Your task to perform on an android device: turn on sleep mode Image 0: 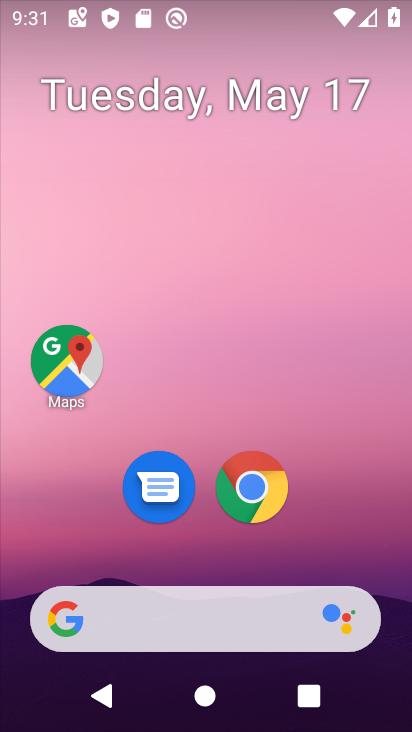
Step 0: press home button
Your task to perform on an android device: turn on sleep mode Image 1: 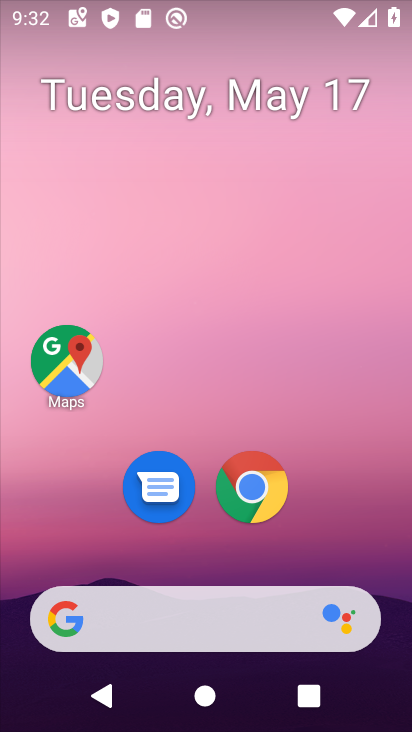
Step 1: drag from (246, 645) to (251, 321)
Your task to perform on an android device: turn on sleep mode Image 2: 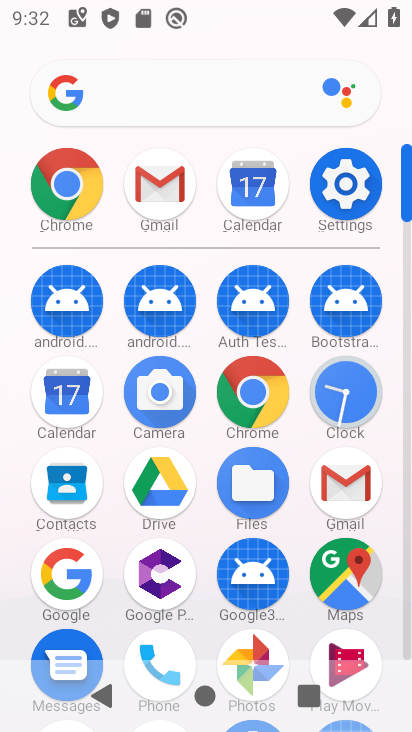
Step 2: click (341, 197)
Your task to perform on an android device: turn on sleep mode Image 3: 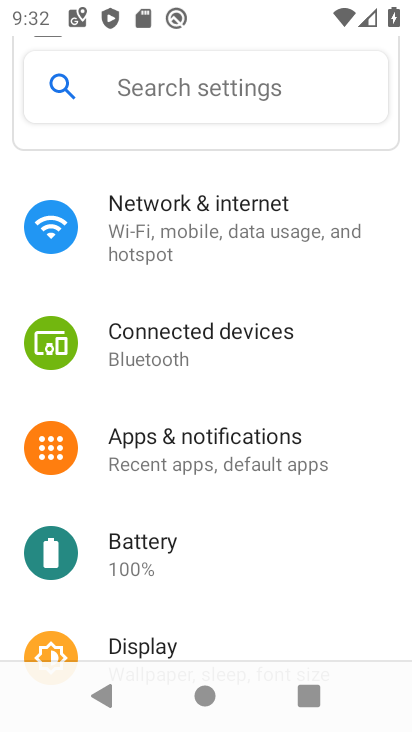
Step 3: click (178, 106)
Your task to perform on an android device: turn on sleep mode Image 4: 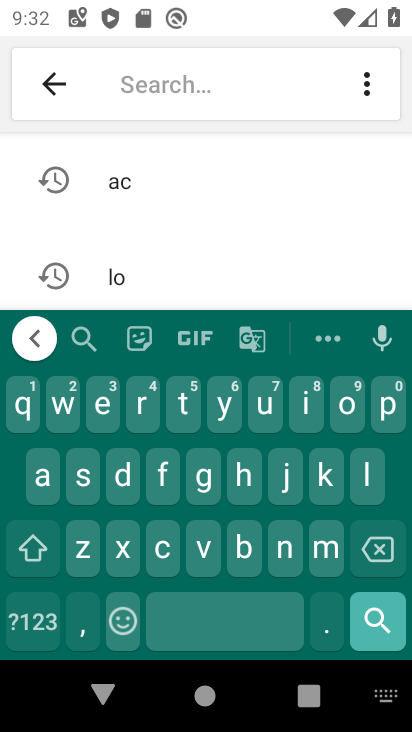
Step 4: click (89, 478)
Your task to perform on an android device: turn on sleep mode Image 5: 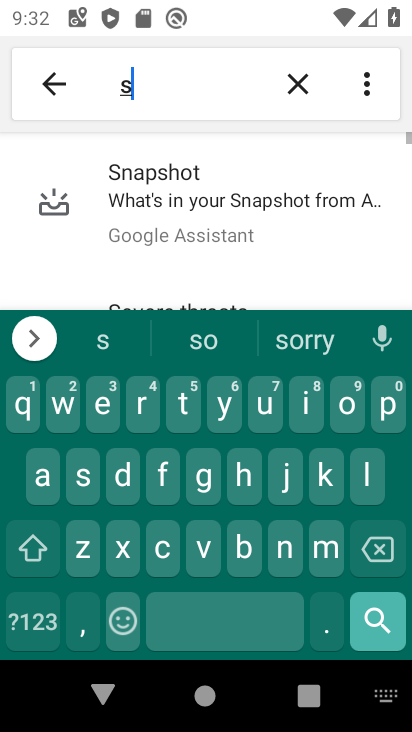
Step 5: click (358, 487)
Your task to perform on an android device: turn on sleep mode Image 6: 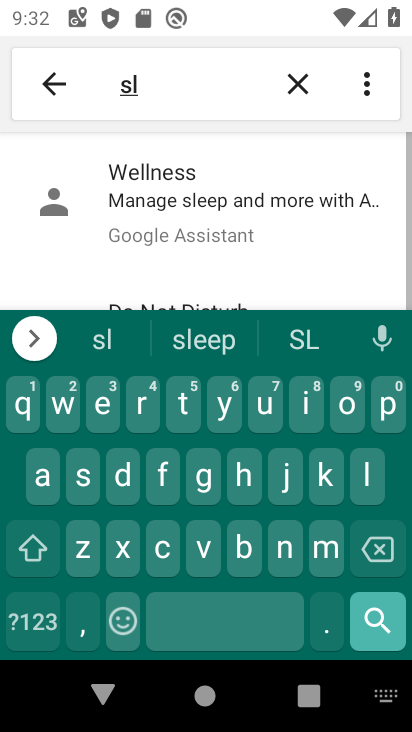
Step 6: click (221, 200)
Your task to perform on an android device: turn on sleep mode Image 7: 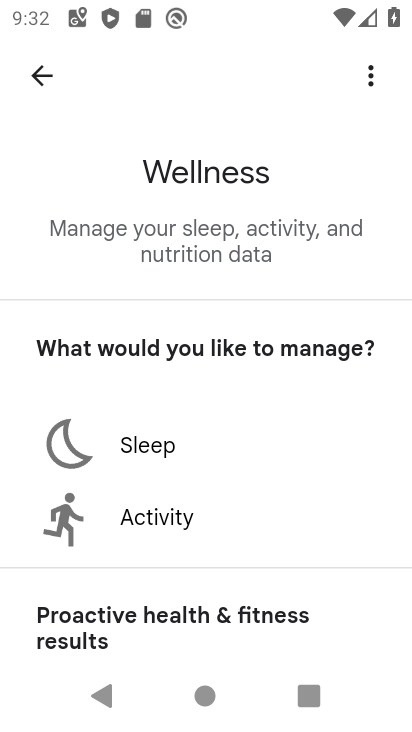
Step 7: click (130, 440)
Your task to perform on an android device: turn on sleep mode Image 8: 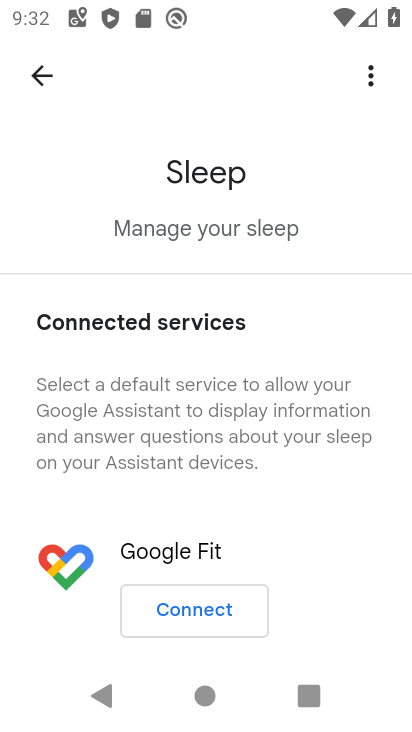
Step 8: task complete